Your task to perform on an android device: Find coffee shops on Maps Image 0: 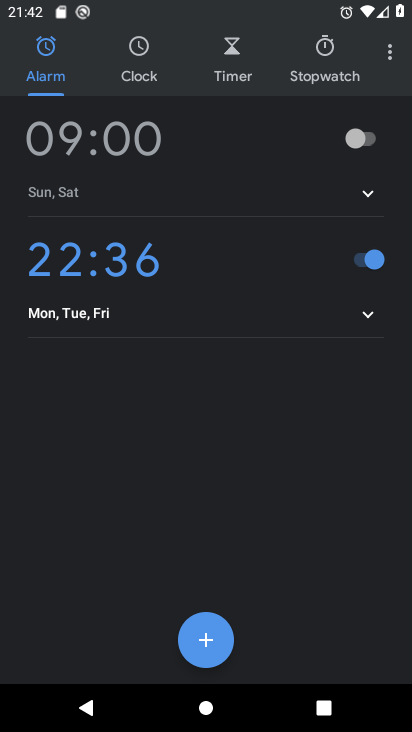
Step 0: press home button
Your task to perform on an android device: Find coffee shops on Maps Image 1: 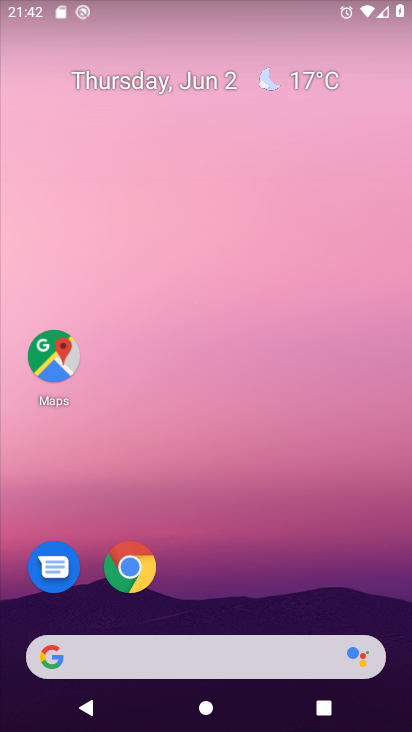
Step 1: click (68, 347)
Your task to perform on an android device: Find coffee shops on Maps Image 2: 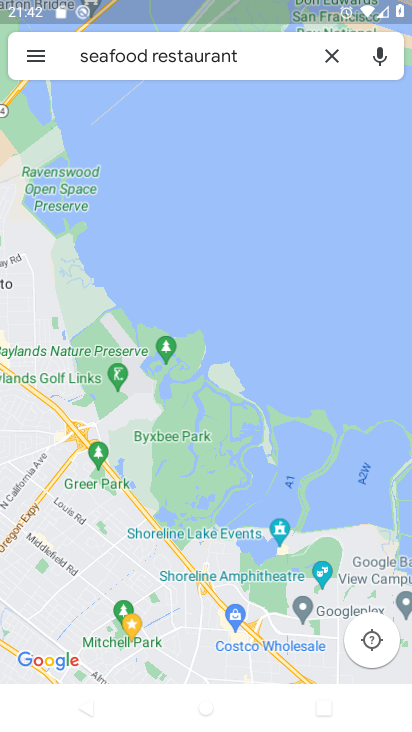
Step 2: click (335, 49)
Your task to perform on an android device: Find coffee shops on Maps Image 3: 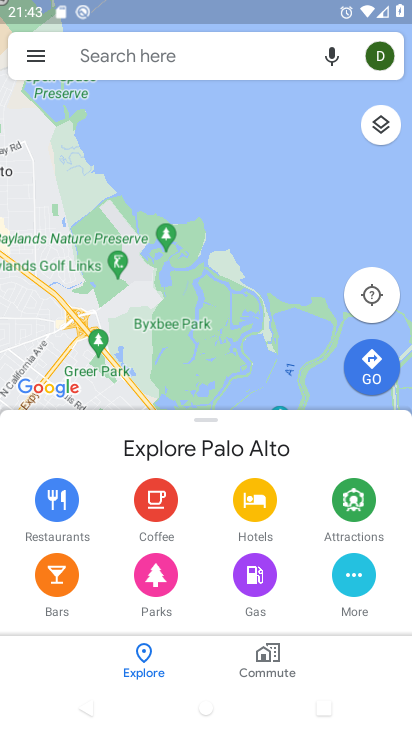
Step 3: click (194, 55)
Your task to perform on an android device: Find coffee shops on Maps Image 4: 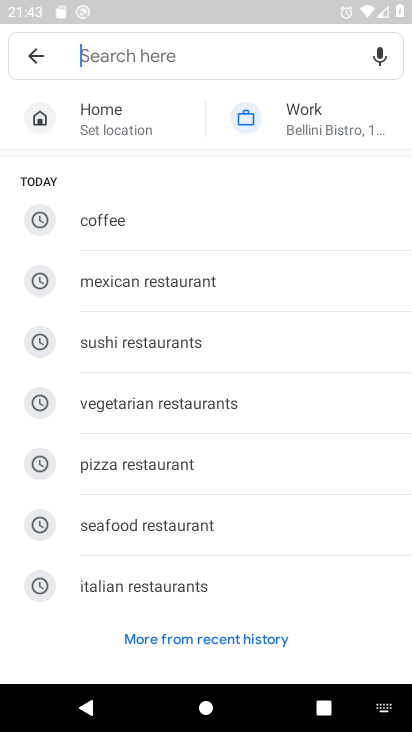
Step 4: type "coffee shops"
Your task to perform on an android device: Find coffee shops on Maps Image 5: 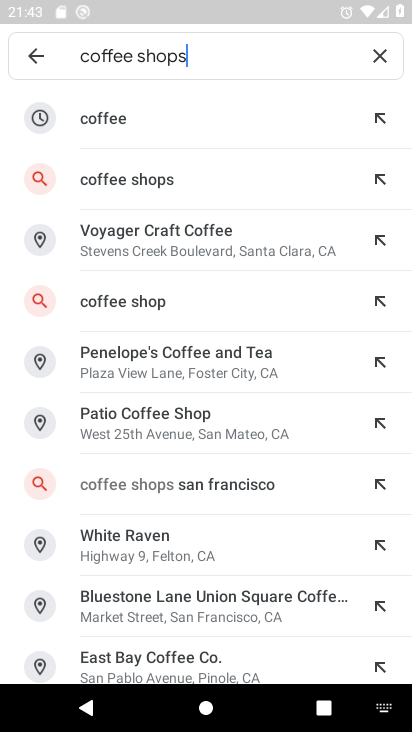
Step 5: click (205, 175)
Your task to perform on an android device: Find coffee shops on Maps Image 6: 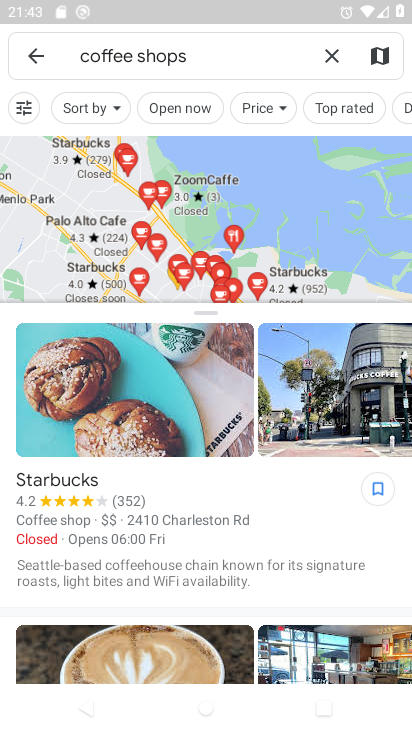
Step 6: task complete